Your task to perform on an android device: change your default location settings in chrome Image 0: 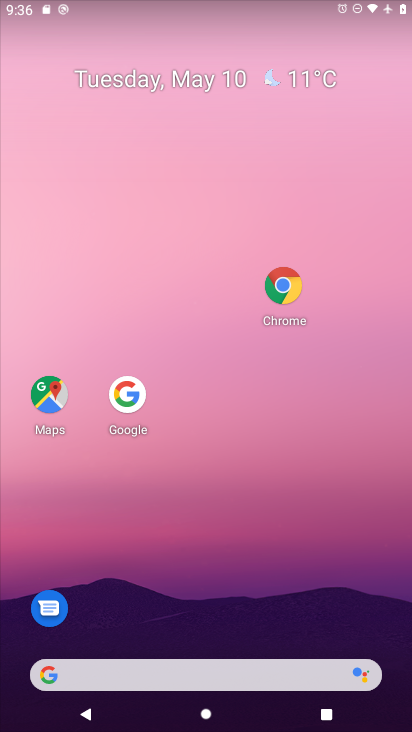
Step 0: drag from (169, 675) to (301, 237)
Your task to perform on an android device: change your default location settings in chrome Image 1: 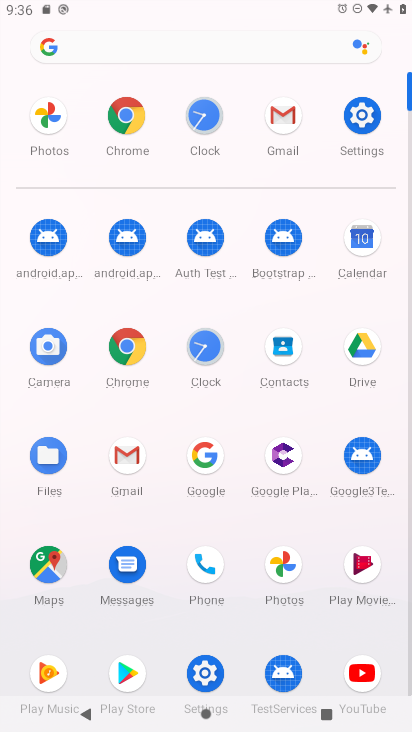
Step 1: click (125, 118)
Your task to perform on an android device: change your default location settings in chrome Image 2: 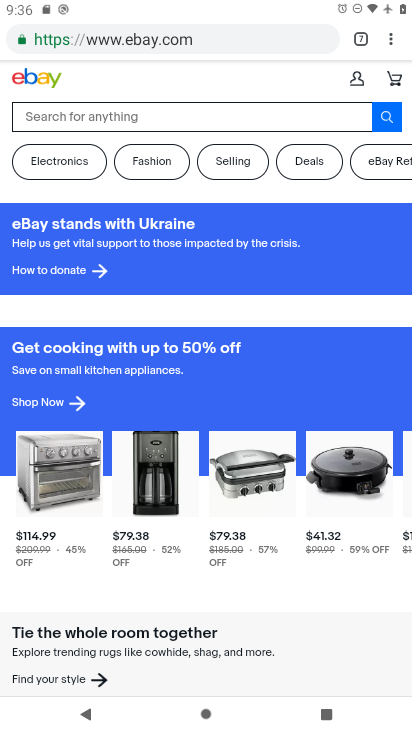
Step 2: drag from (392, 43) to (282, 470)
Your task to perform on an android device: change your default location settings in chrome Image 3: 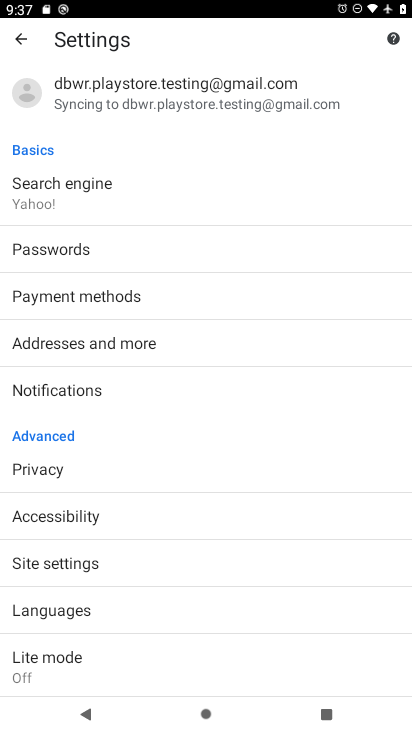
Step 3: click (77, 565)
Your task to perform on an android device: change your default location settings in chrome Image 4: 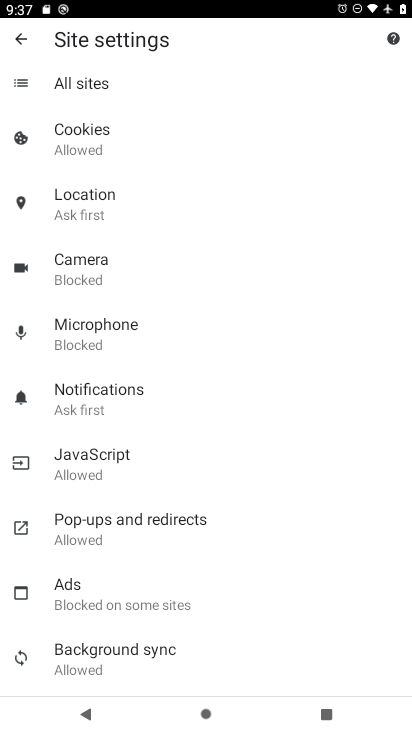
Step 4: click (89, 204)
Your task to perform on an android device: change your default location settings in chrome Image 5: 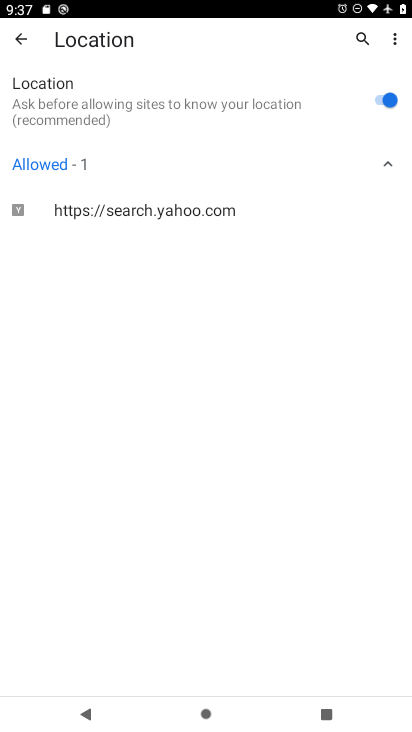
Step 5: click (376, 101)
Your task to perform on an android device: change your default location settings in chrome Image 6: 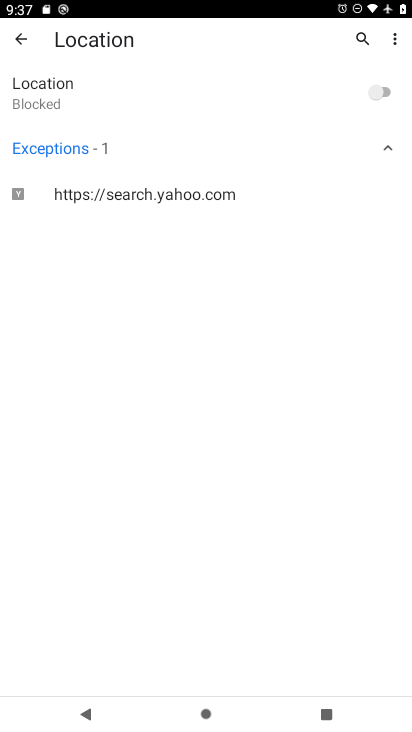
Step 6: task complete